Your task to perform on an android device: open chrome privacy settings Image 0: 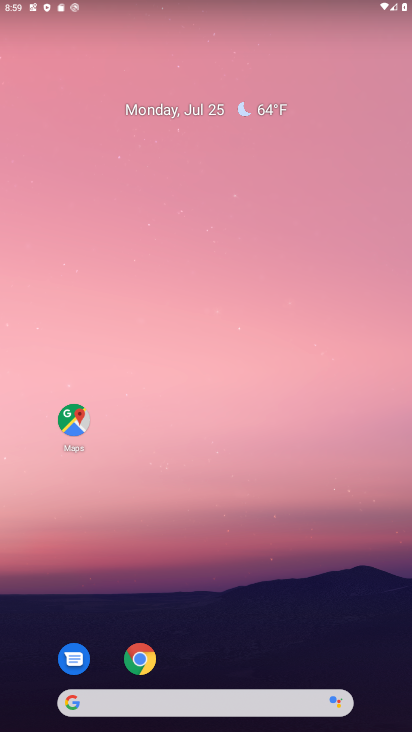
Step 0: press home button
Your task to perform on an android device: open chrome privacy settings Image 1: 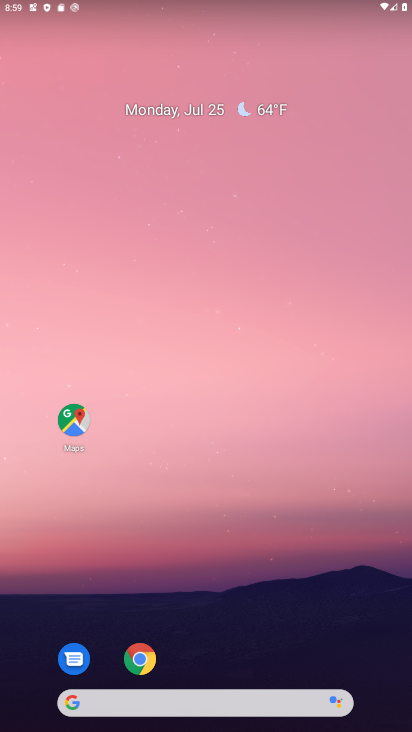
Step 1: drag from (359, 623) to (355, 118)
Your task to perform on an android device: open chrome privacy settings Image 2: 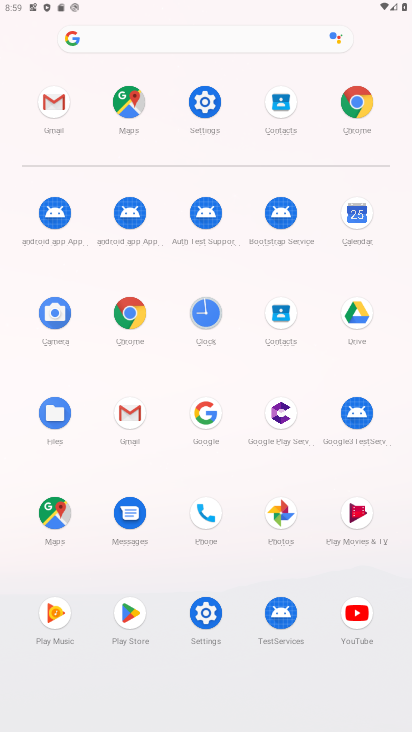
Step 2: click (124, 310)
Your task to perform on an android device: open chrome privacy settings Image 3: 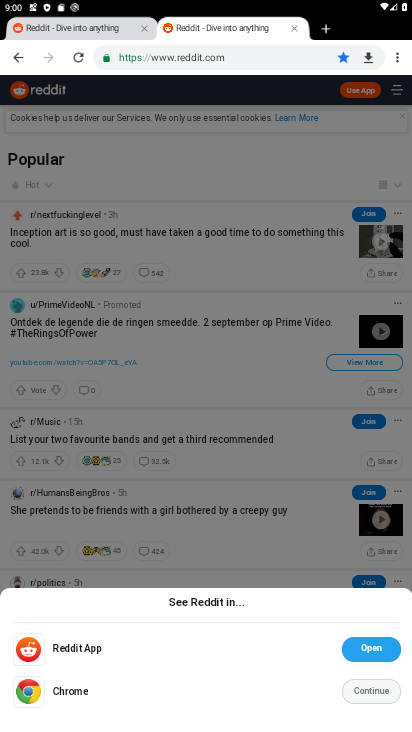
Step 3: click (400, 56)
Your task to perform on an android device: open chrome privacy settings Image 4: 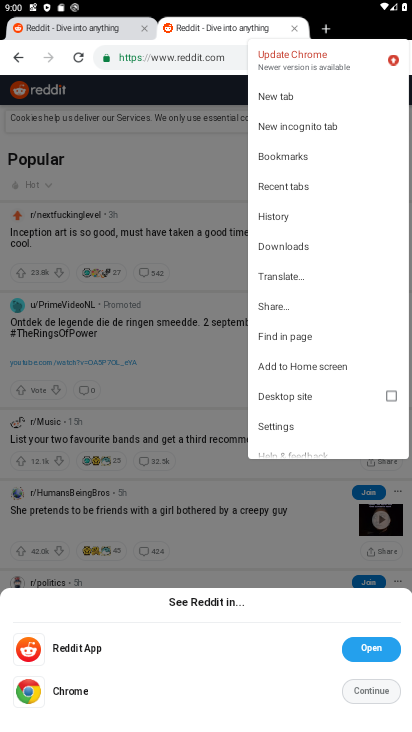
Step 4: click (293, 425)
Your task to perform on an android device: open chrome privacy settings Image 5: 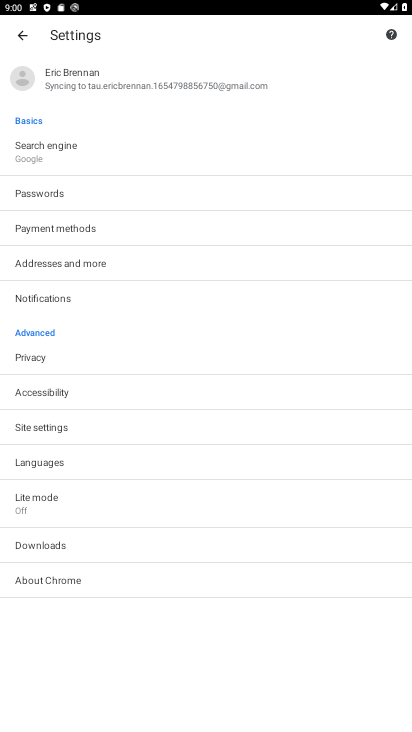
Step 5: click (129, 360)
Your task to perform on an android device: open chrome privacy settings Image 6: 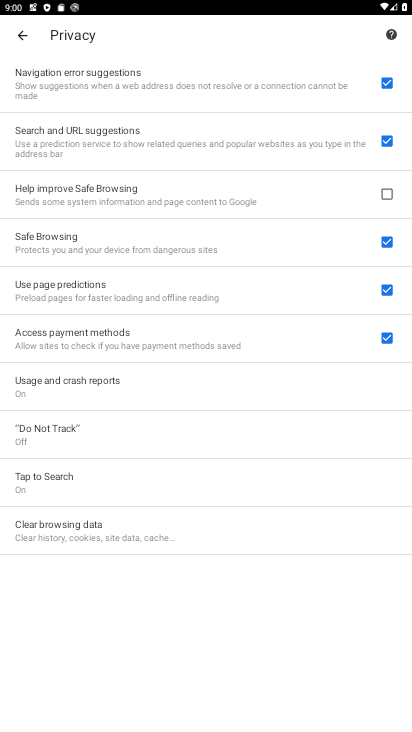
Step 6: task complete